Your task to perform on an android device: turn on translation in the chrome app Image 0: 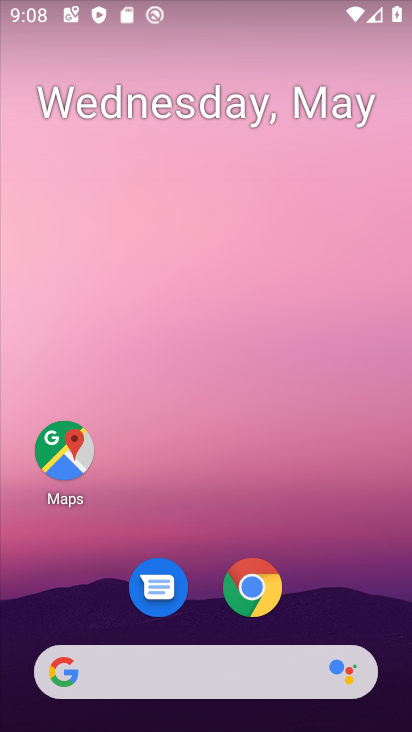
Step 0: click (251, 585)
Your task to perform on an android device: turn on translation in the chrome app Image 1: 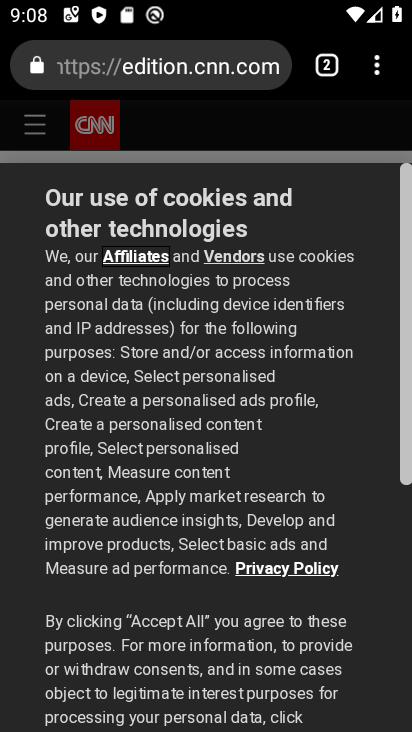
Step 1: click (377, 73)
Your task to perform on an android device: turn on translation in the chrome app Image 2: 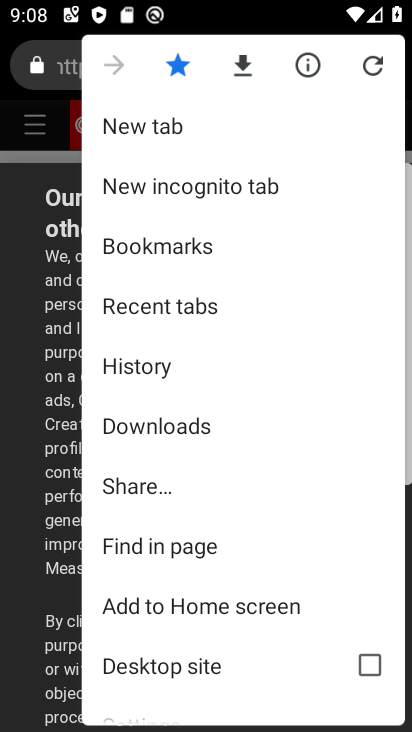
Step 2: drag from (226, 680) to (208, 309)
Your task to perform on an android device: turn on translation in the chrome app Image 3: 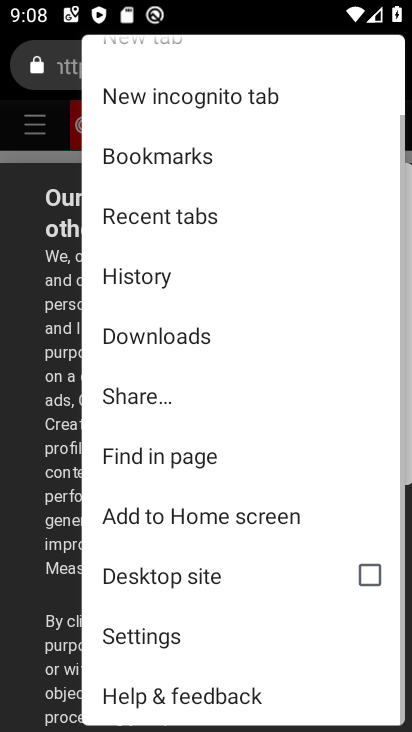
Step 3: click (149, 639)
Your task to perform on an android device: turn on translation in the chrome app Image 4: 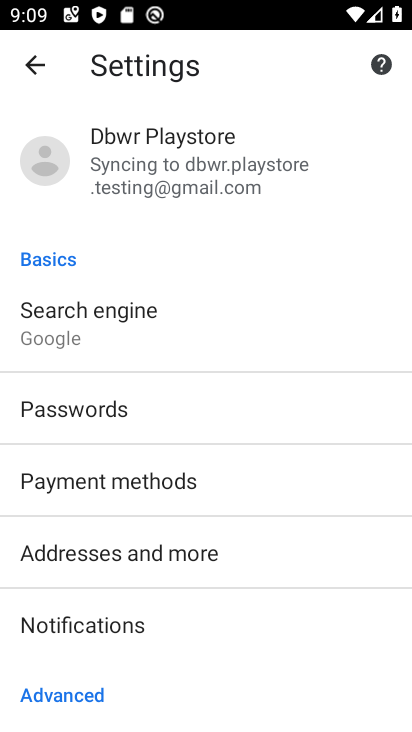
Step 4: drag from (145, 668) to (137, 270)
Your task to perform on an android device: turn on translation in the chrome app Image 5: 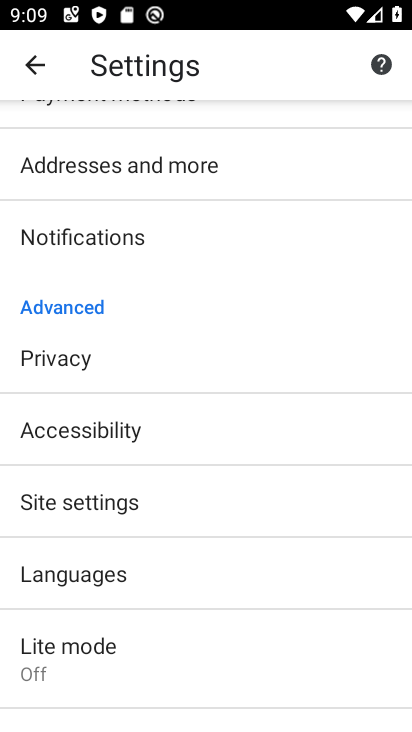
Step 5: click (80, 570)
Your task to perform on an android device: turn on translation in the chrome app Image 6: 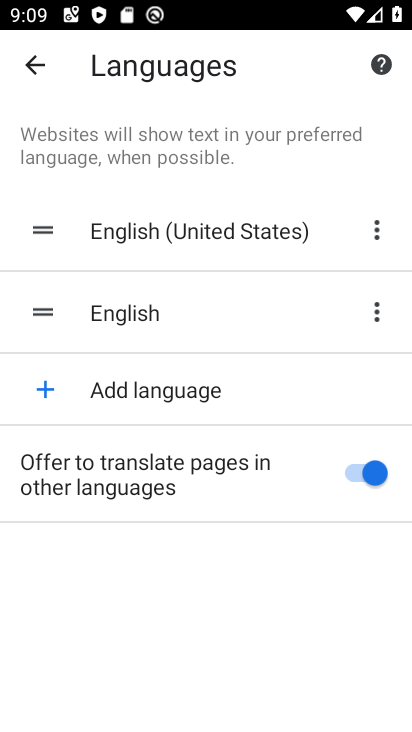
Step 6: task complete